Your task to perform on an android device: turn off location Image 0: 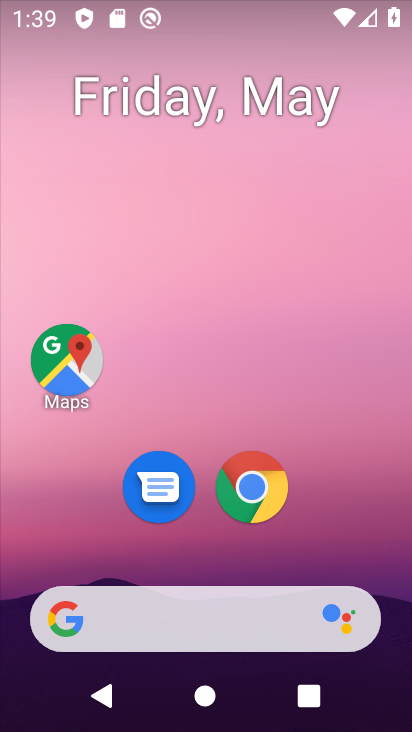
Step 0: drag from (348, 552) to (308, 8)
Your task to perform on an android device: turn off location Image 1: 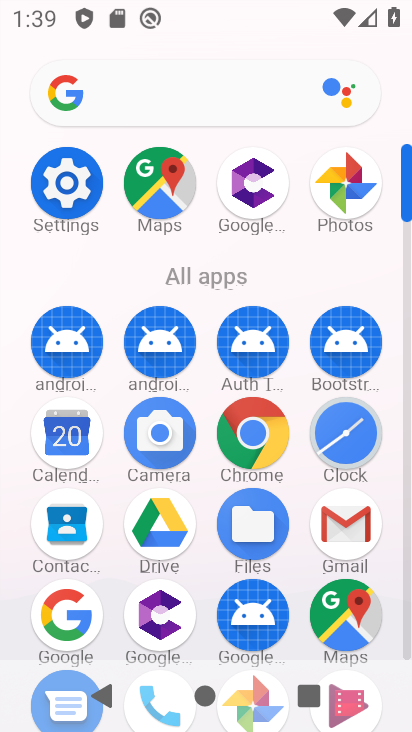
Step 1: click (61, 188)
Your task to perform on an android device: turn off location Image 2: 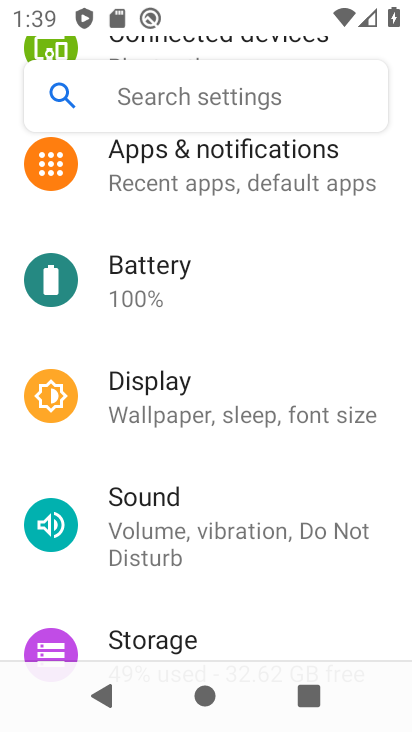
Step 2: drag from (212, 591) to (171, 88)
Your task to perform on an android device: turn off location Image 3: 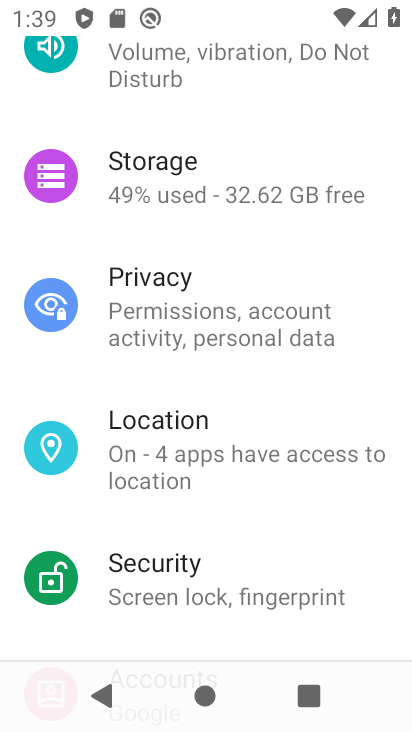
Step 3: click (171, 454)
Your task to perform on an android device: turn off location Image 4: 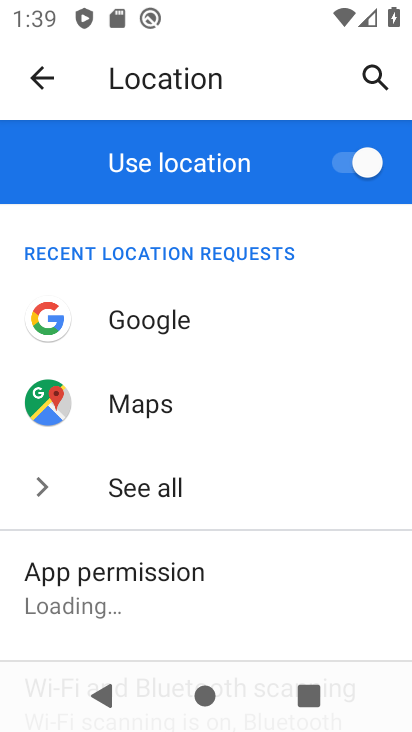
Step 4: click (359, 166)
Your task to perform on an android device: turn off location Image 5: 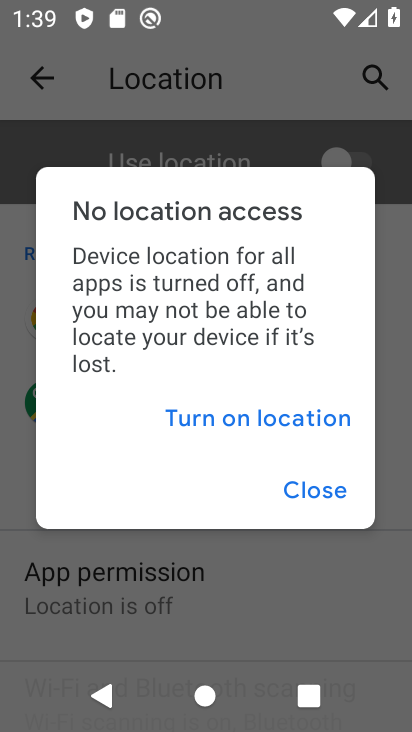
Step 5: click (319, 482)
Your task to perform on an android device: turn off location Image 6: 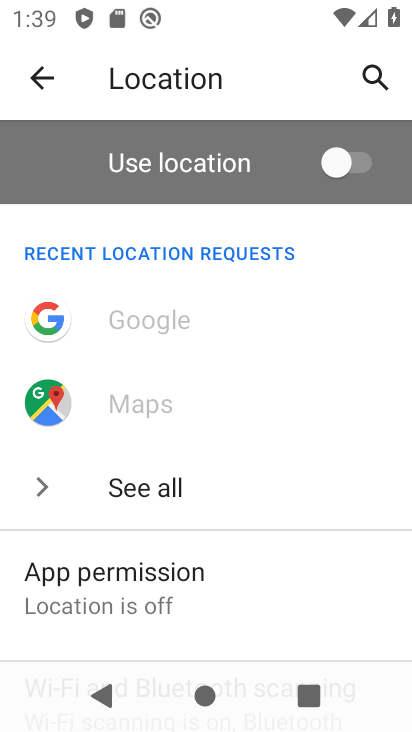
Step 6: task complete